Your task to perform on an android device: open a new tab in the chrome app Image 0: 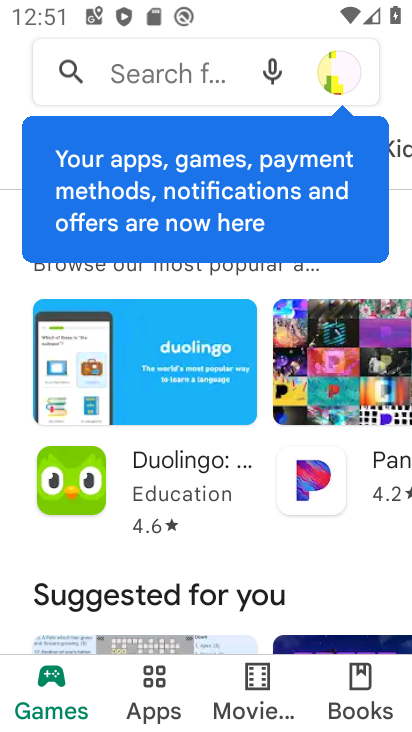
Step 0: press home button
Your task to perform on an android device: open a new tab in the chrome app Image 1: 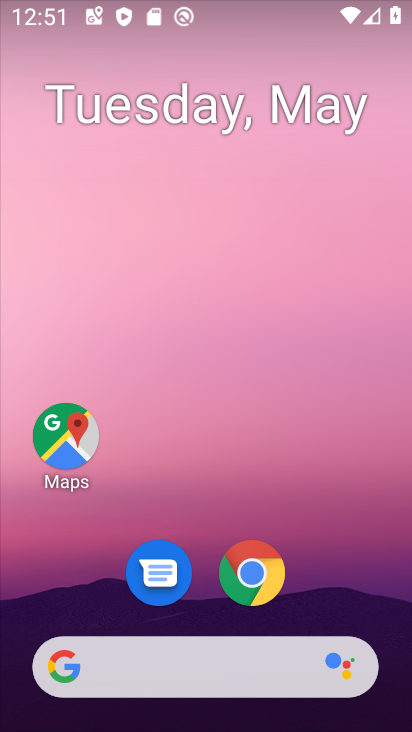
Step 1: click (275, 590)
Your task to perform on an android device: open a new tab in the chrome app Image 2: 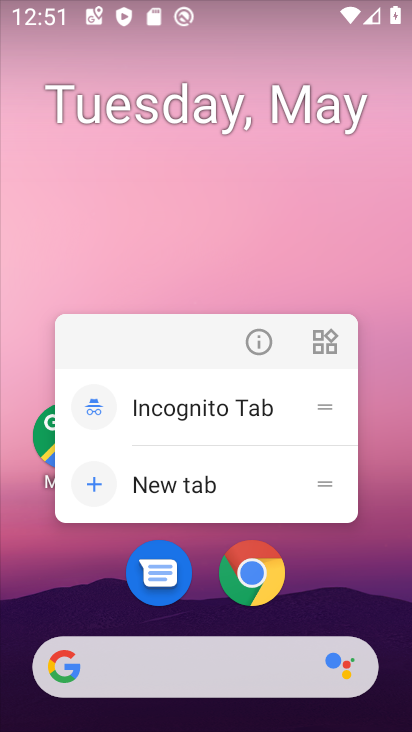
Step 2: click (276, 587)
Your task to perform on an android device: open a new tab in the chrome app Image 3: 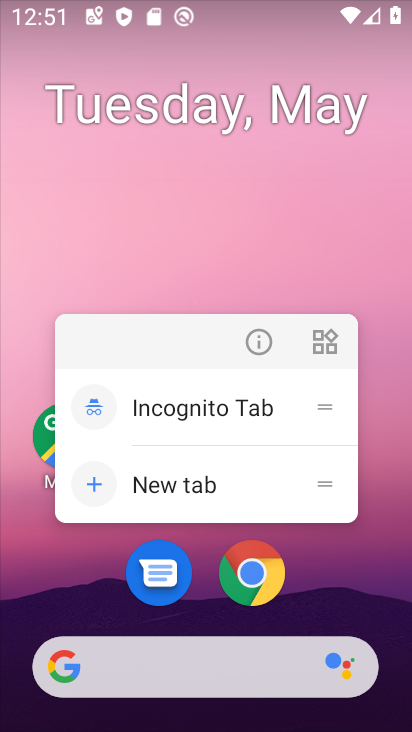
Step 3: click (267, 571)
Your task to perform on an android device: open a new tab in the chrome app Image 4: 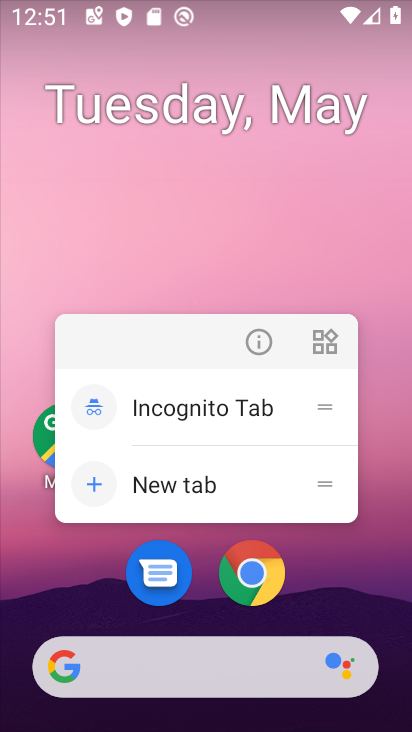
Step 4: click (404, 583)
Your task to perform on an android device: open a new tab in the chrome app Image 5: 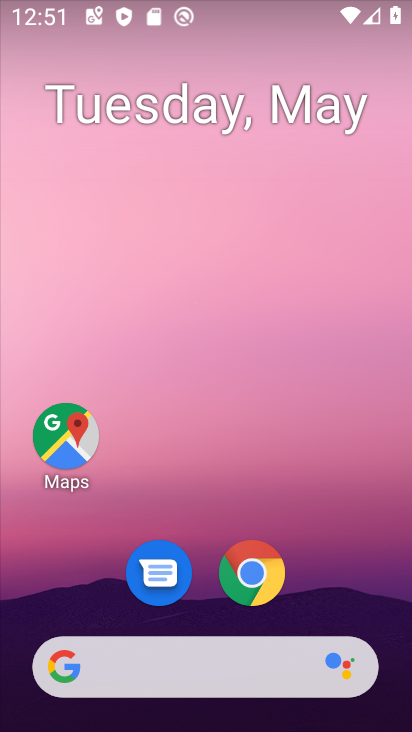
Step 5: drag from (375, 606) to (343, 117)
Your task to perform on an android device: open a new tab in the chrome app Image 6: 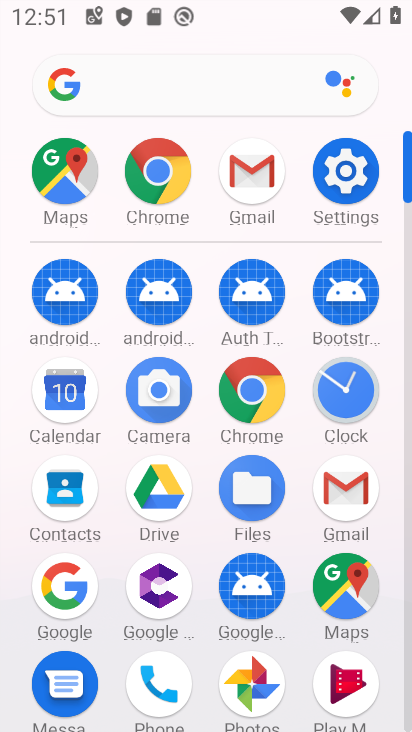
Step 6: click (155, 171)
Your task to perform on an android device: open a new tab in the chrome app Image 7: 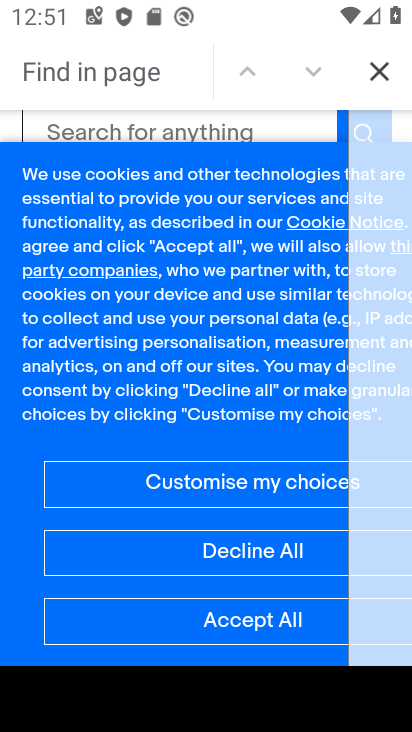
Step 7: click (374, 77)
Your task to perform on an android device: open a new tab in the chrome app Image 8: 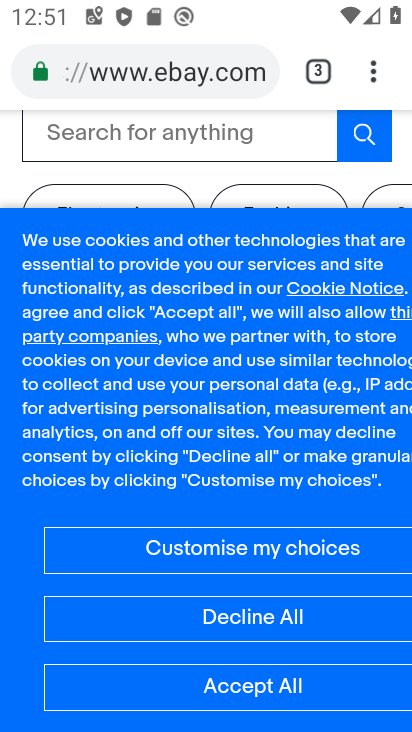
Step 8: task complete